Your task to perform on an android device: Search for vegetarian restaurants on Maps Image 0: 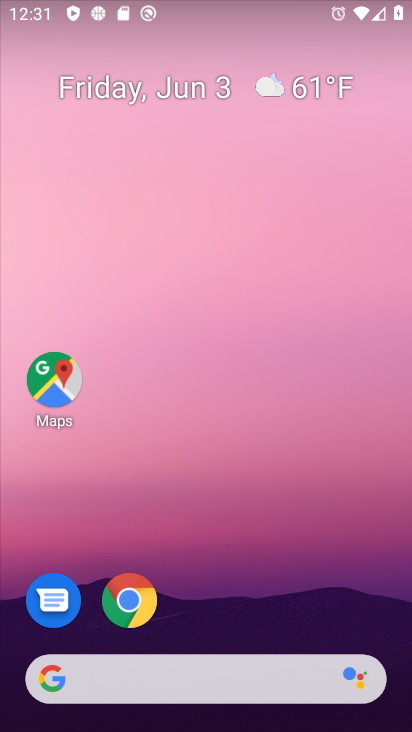
Step 0: drag from (255, 576) to (324, 179)
Your task to perform on an android device: Search for vegetarian restaurants on Maps Image 1: 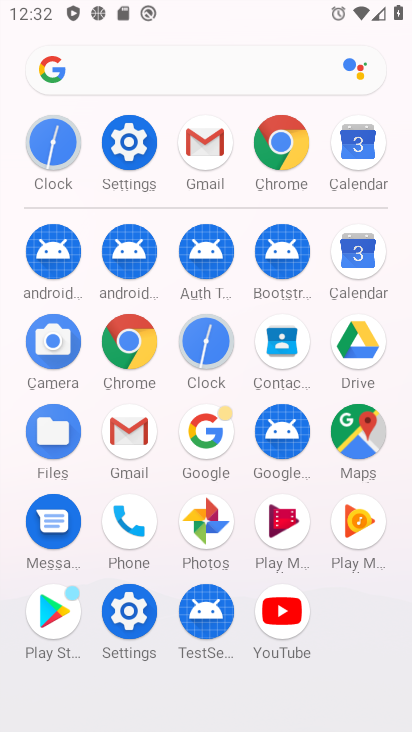
Step 1: click (366, 430)
Your task to perform on an android device: Search for vegetarian restaurants on Maps Image 2: 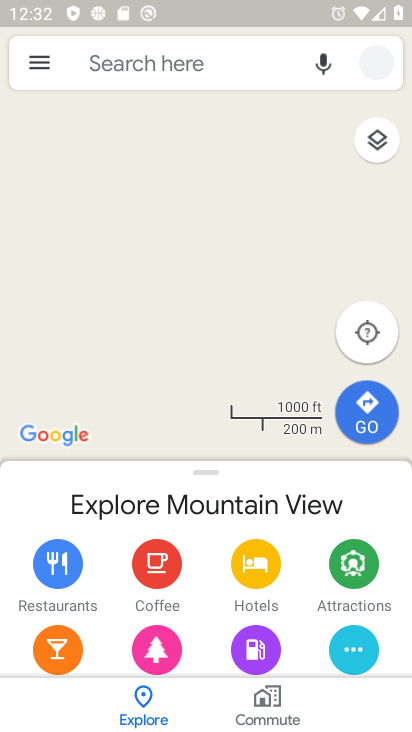
Step 2: click (145, 58)
Your task to perform on an android device: Search for vegetarian restaurants on Maps Image 3: 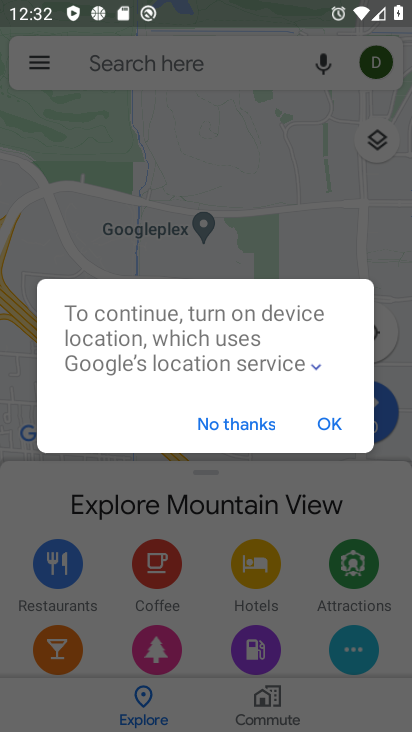
Step 3: click (227, 439)
Your task to perform on an android device: Search for vegetarian restaurants on Maps Image 4: 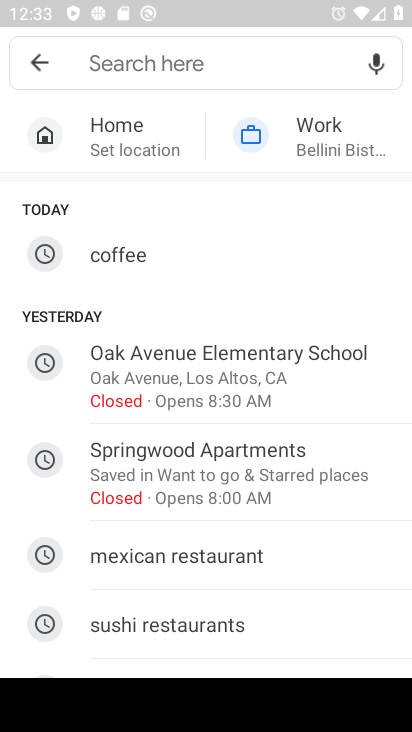
Step 4: type "vegetairan restaurants"
Your task to perform on an android device: Search for vegetarian restaurants on Maps Image 5: 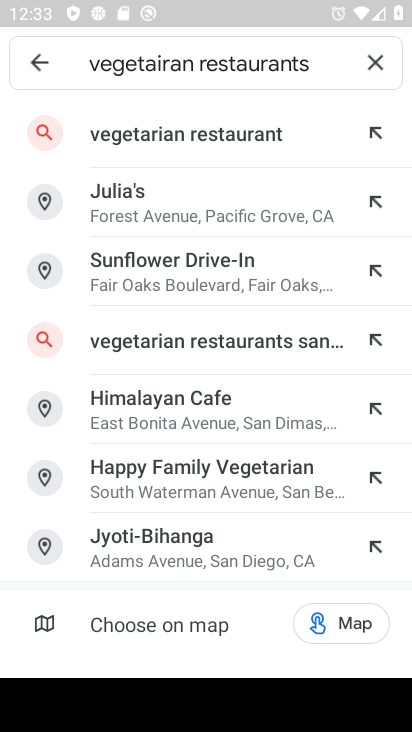
Step 5: press enter
Your task to perform on an android device: Search for vegetarian restaurants on Maps Image 6: 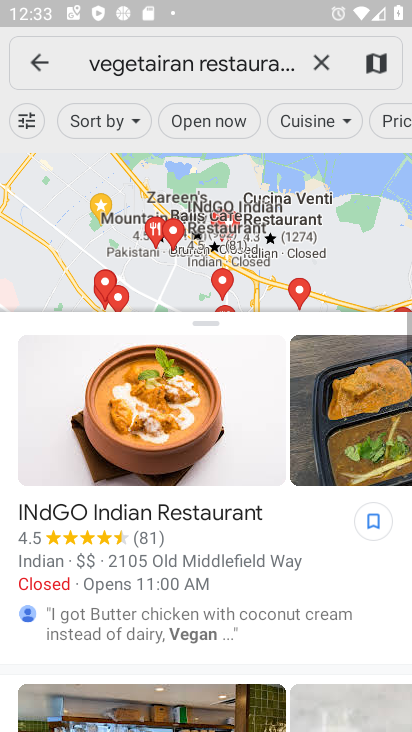
Step 6: task complete